Your task to perform on an android device: What's the weather? Image 0: 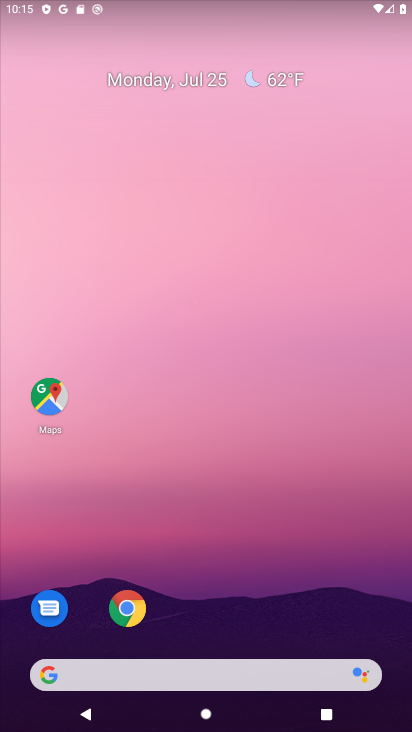
Step 0: click (226, 682)
Your task to perform on an android device: What's the weather? Image 1: 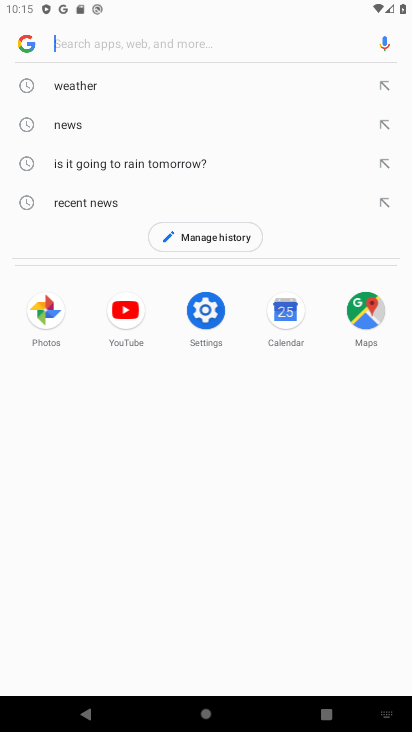
Step 1: type "What's the weather?"
Your task to perform on an android device: What's the weather? Image 2: 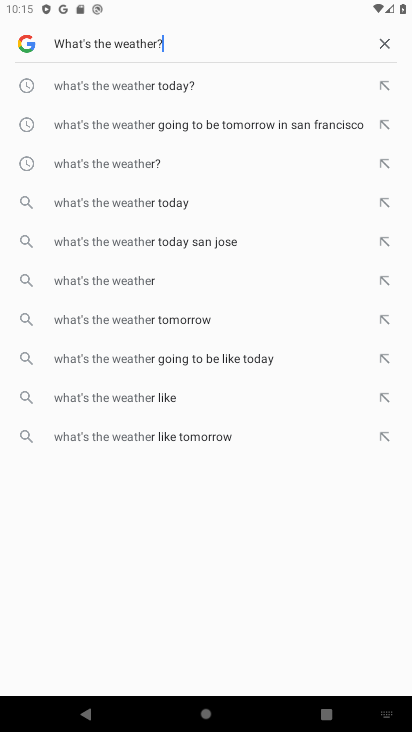
Step 2: press enter
Your task to perform on an android device: What's the weather? Image 3: 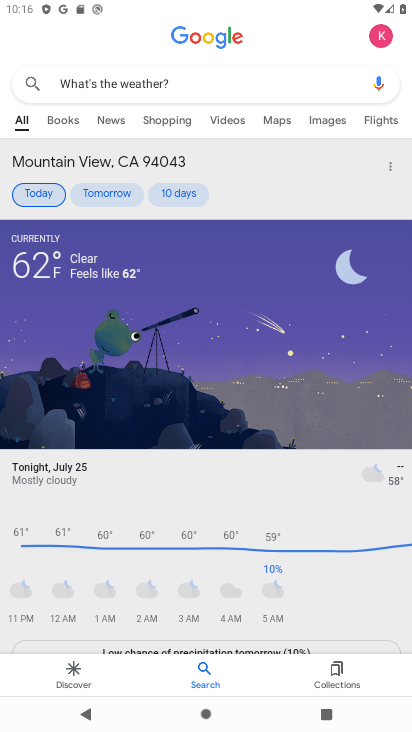
Step 3: task complete